Your task to perform on an android device: turn off airplane mode Image 0: 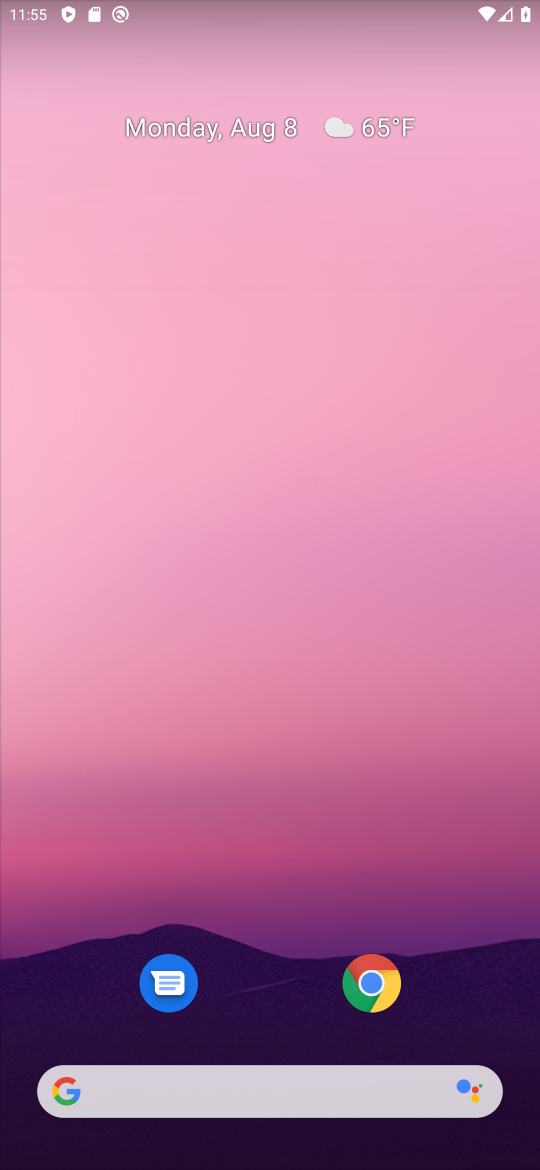
Step 0: drag from (293, 1035) to (223, 47)
Your task to perform on an android device: turn off airplane mode Image 1: 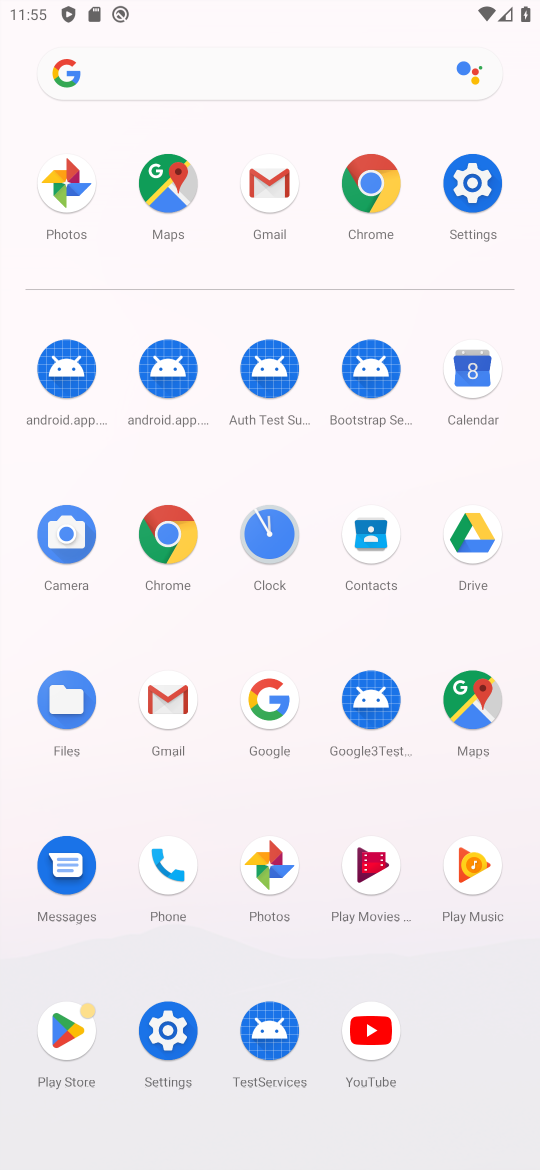
Step 1: click (446, 198)
Your task to perform on an android device: turn off airplane mode Image 2: 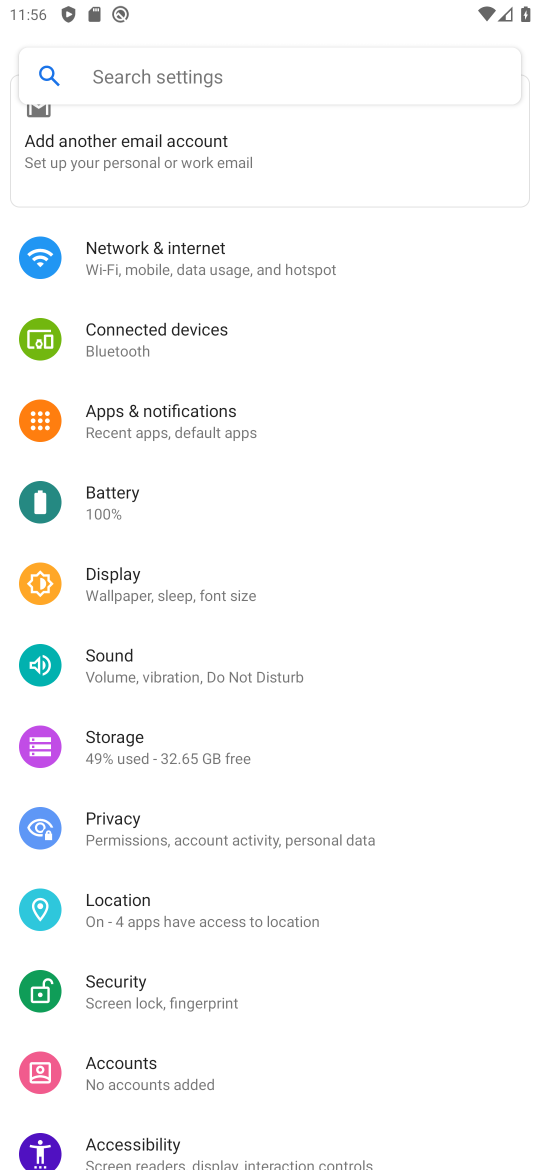
Step 2: click (366, 258)
Your task to perform on an android device: turn off airplane mode Image 3: 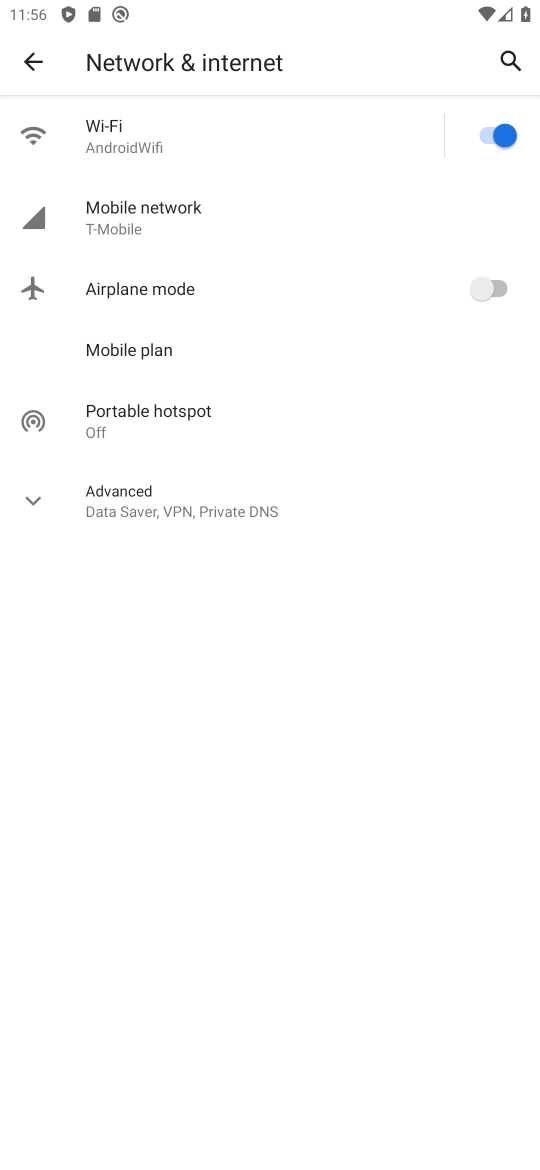
Step 3: click (479, 302)
Your task to perform on an android device: turn off airplane mode Image 4: 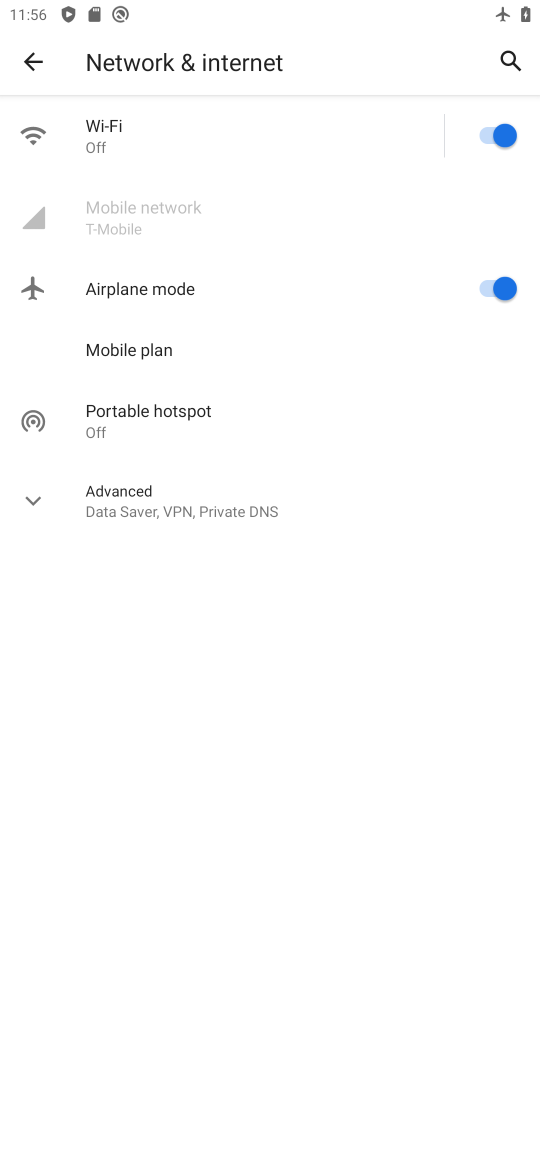
Step 4: task complete